Your task to perform on an android device: Go to Amazon Image 0: 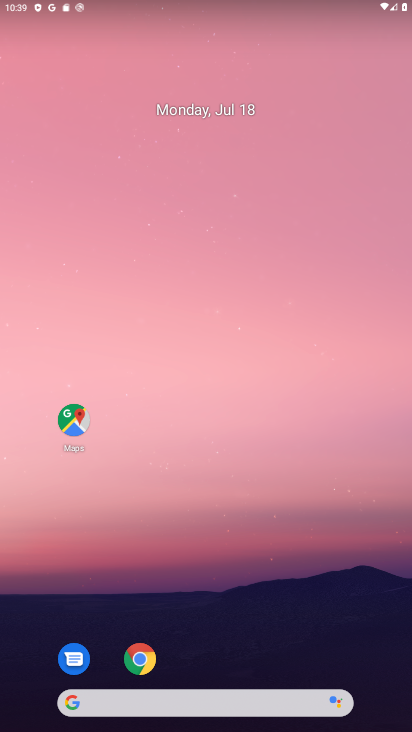
Step 0: press home button
Your task to perform on an android device: Go to Amazon Image 1: 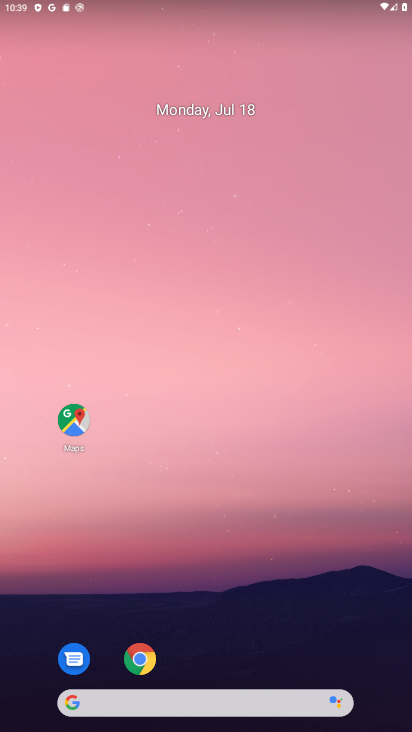
Step 1: click (150, 668)
Your task to perform on an android device: Go to Amazon Image 2: 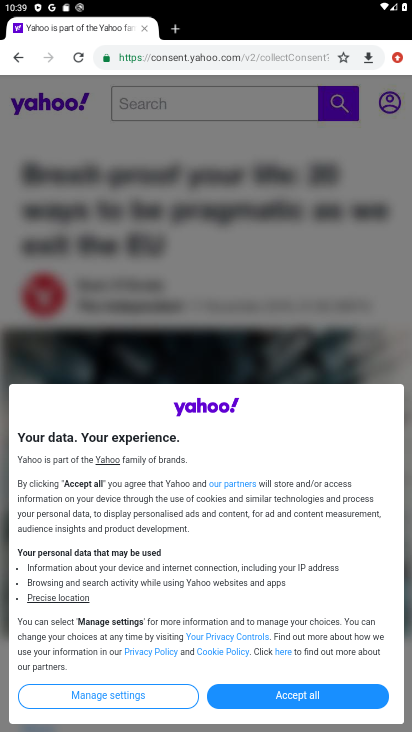
Step 2: drag from (396, 62) to (297, 89)
Your task to perform on an android device: Go to Amazon Image 3: 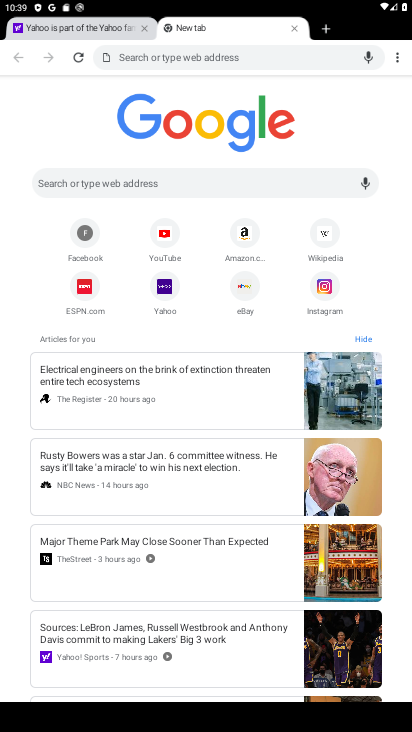
Step 3: click (231, 248)
Your task to perform on an android device: Go to Amazon Image 4: 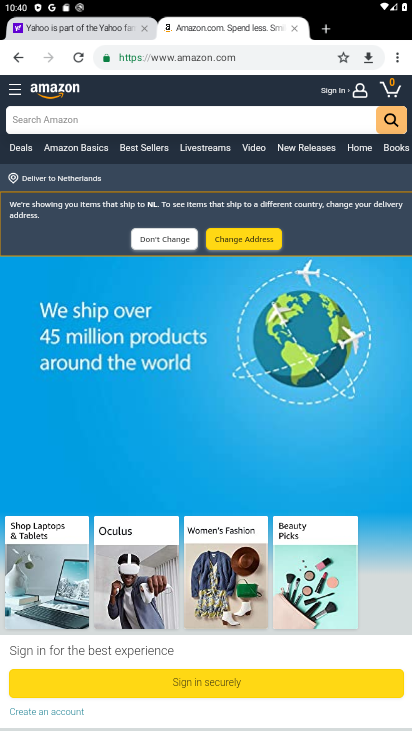
Step 4: task complete